Your task to perform on an android device: What is the recent news? Image 0: 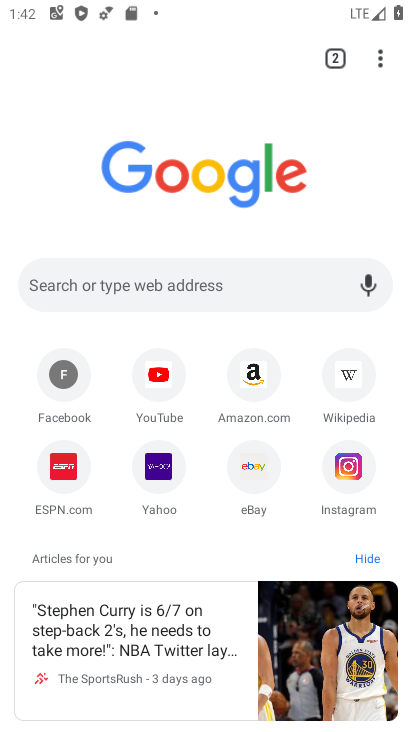
Step 0: press home button
Your task to perform on an android device: What is the recent news? Image 1: 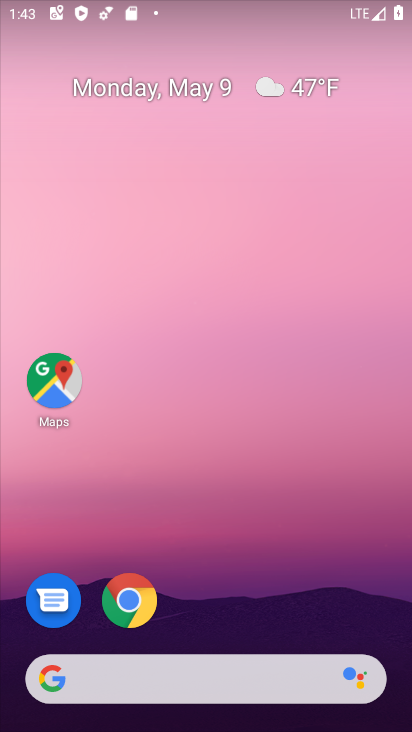
Step 1: drag from (2, 462) to (385, 487)
Your task to perform on an android device: What is the recent news? Image 2: 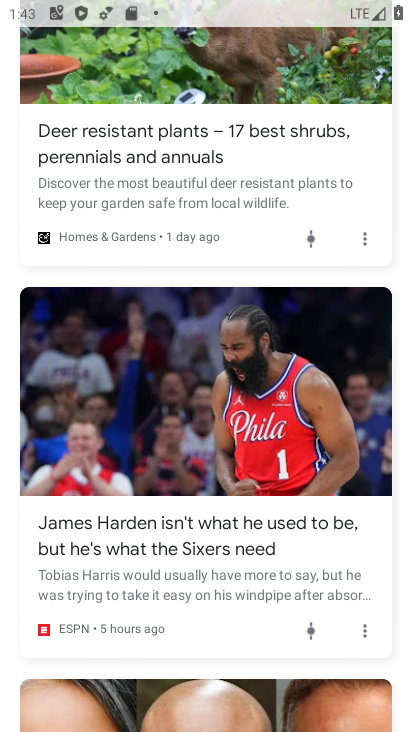
Step 2: drag from (236, 214) to (227, 678)
Your task to perform on an android device: What is the recent news? Image 3: 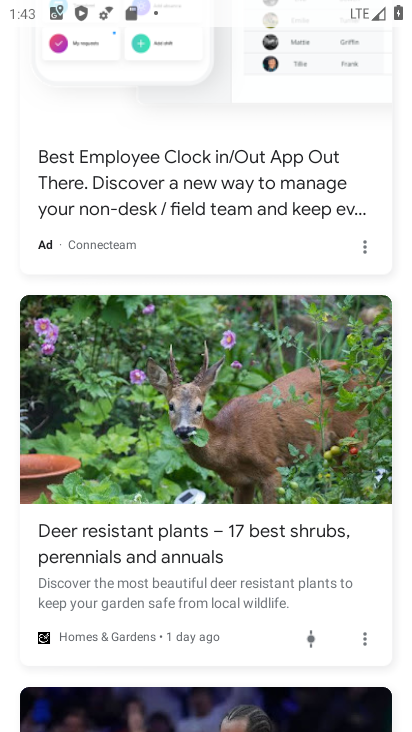
Step 3: drag from (221, 118) to (200, 729)
Your task to perform on an android device: What is the recent news? Image 4: 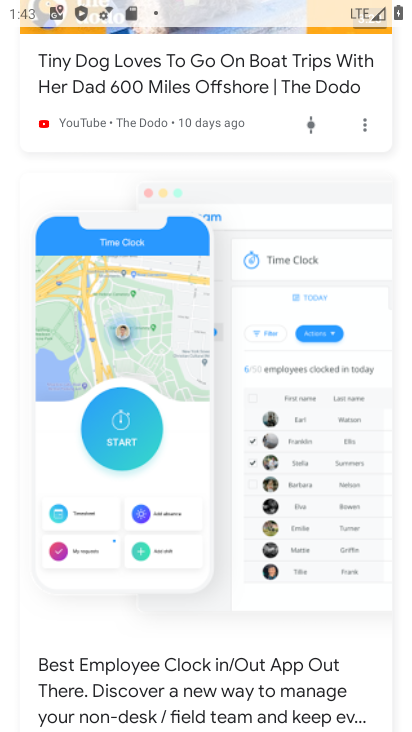
Step 4: drag from (213, 154) to (213, 671)
Your task to perform on an android device: What is the recent news? Image 5: 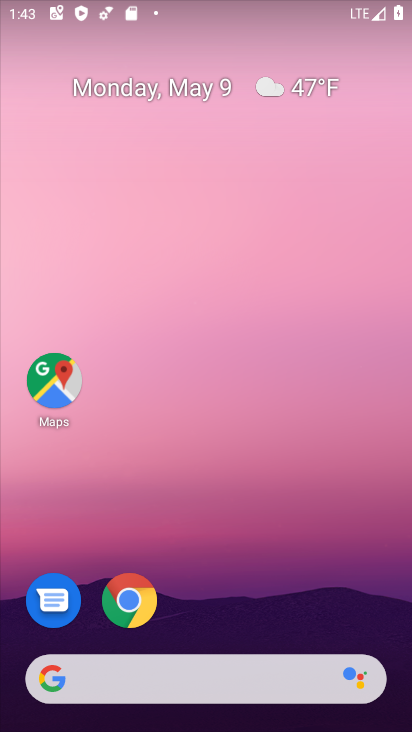
Step 5: drag from (1, 290) to (385, 324)
Your task to perform on an android device: What is the recent news? Image 6: 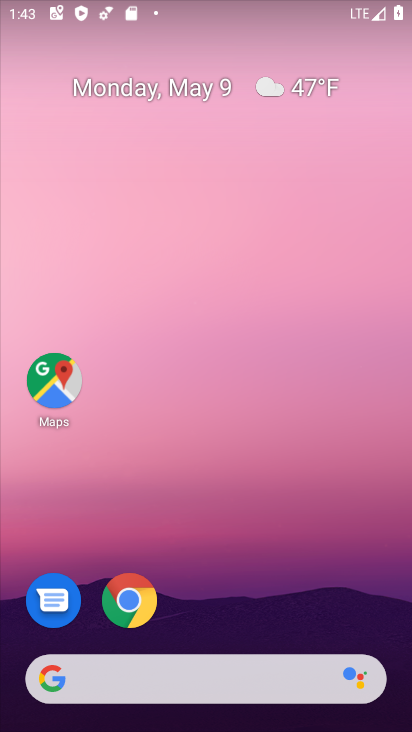
Step 6: drag from (4, 282) to (407, 324)
Your task to perform on an android device: What is the recent news? Image 7: 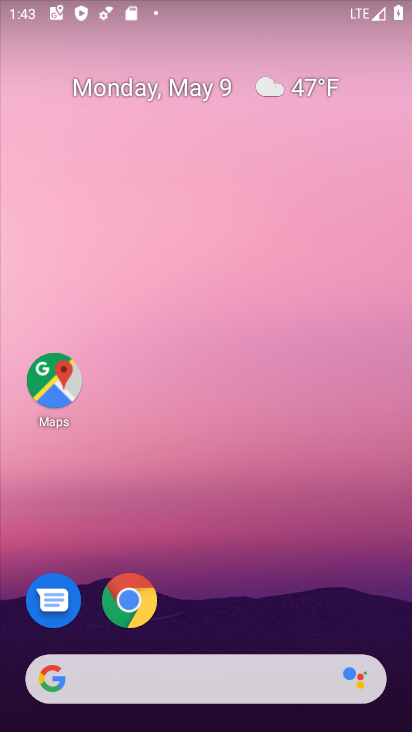
Step 7: click (402, 330)
Your task to perform on an android device: What is the recent news? Image 8: 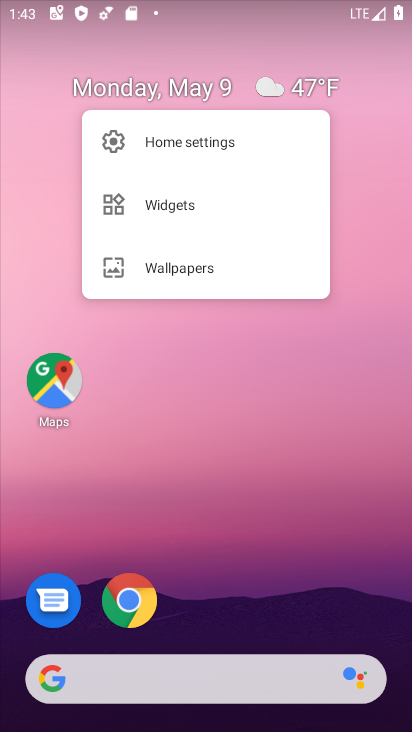
Step 8: click (182, 476)
Your task to perform on an android device: What is the recent news? Image 9: 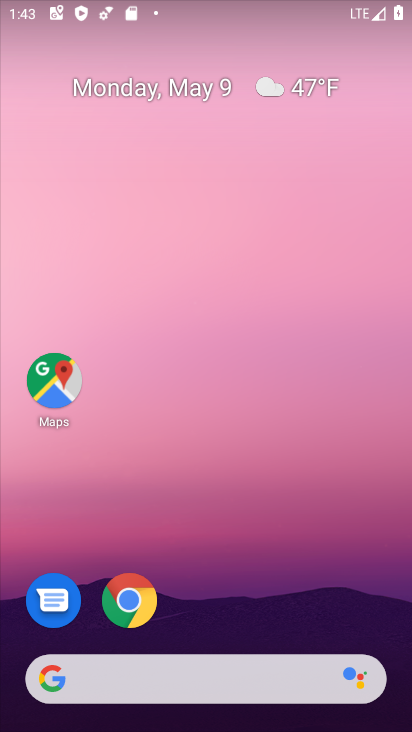
Step 9: task complete